Your task to perform on an android device: turn off smart reply in the gmail app Image 0: 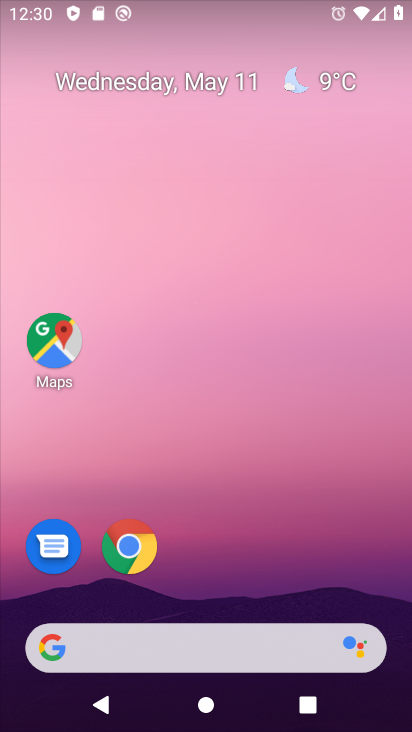
Step 0: click (283, 189)
Your task to perform on an android device: turn off smart reply in the gmail app Image 1: 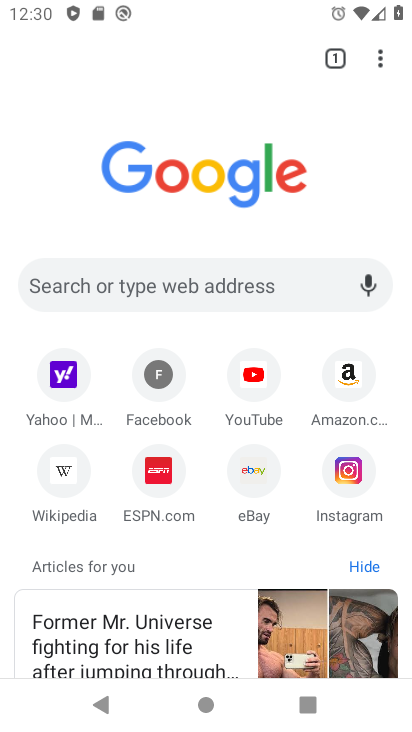
Step 1: drag from (212, 657) to (254, 357)
Your task to perform on an android device: turn off smart reply in the gmail app Image 2: 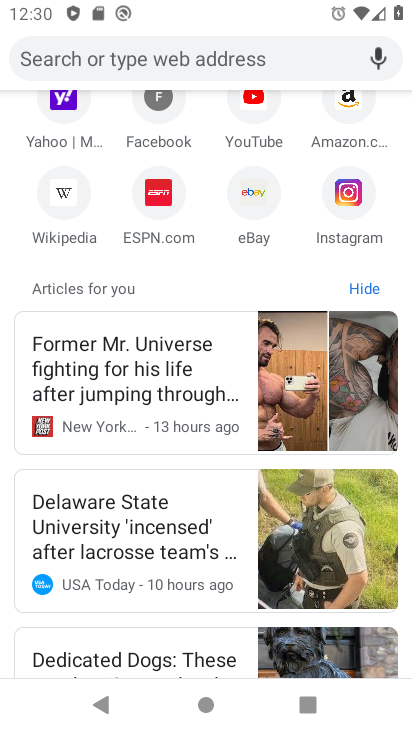
Step 2: press home button
Your task to perform on an android device: turn off smart reply in the gmail app Image 3: 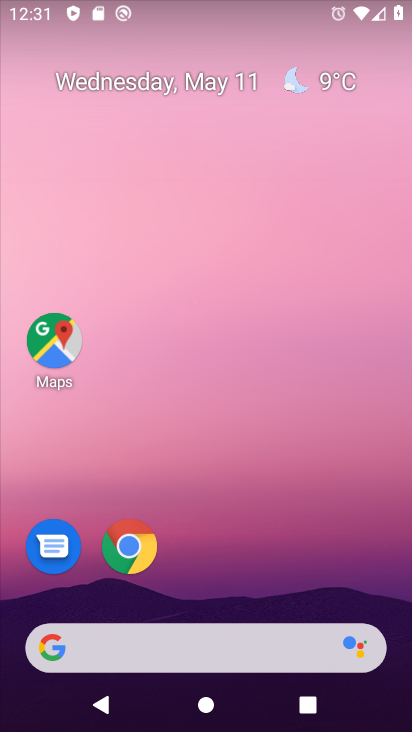
Step 3: drag from (194, 595) to (198, 154)
Your task to perform on an android device: turn off smart reply in the gmail app Image 4: 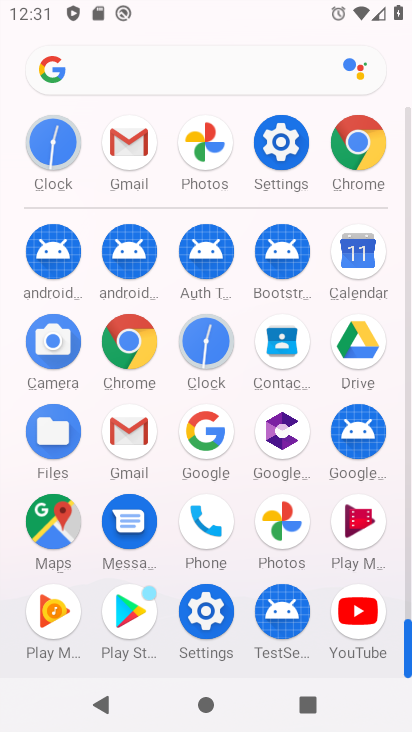
Step 4: click (128, 434)
Your task to perform on an android device: turn off smart reply in the gmail app Image 5: 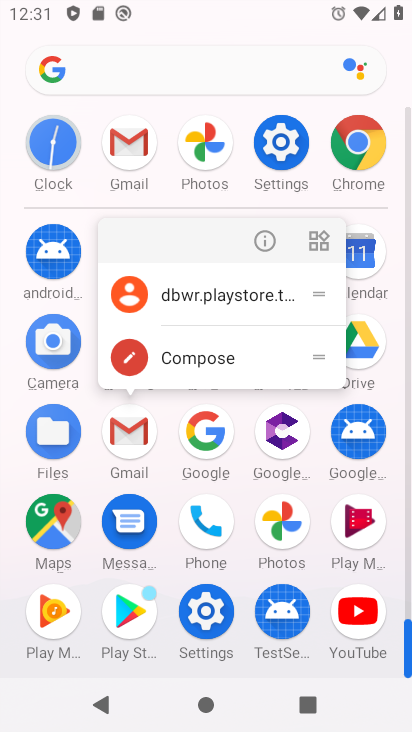
Step 5: click (252, 248)
Your task to perform on an android device: turn off smart reply in the gmail app Image 6: 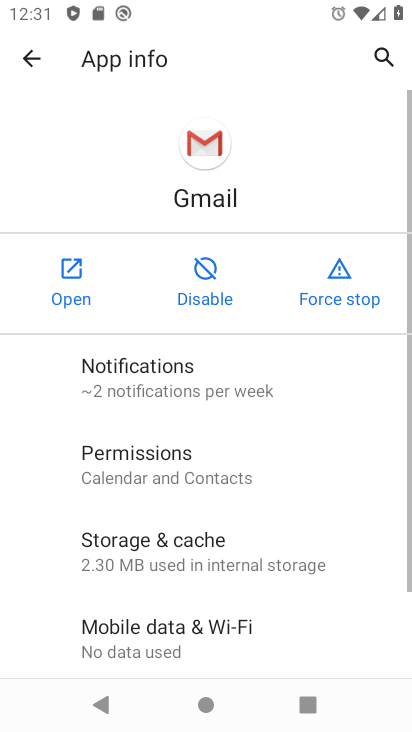
Step 6: click (69, 247)
Your task to perform on an android device: turn off smart reply in the gmail app Image 7: 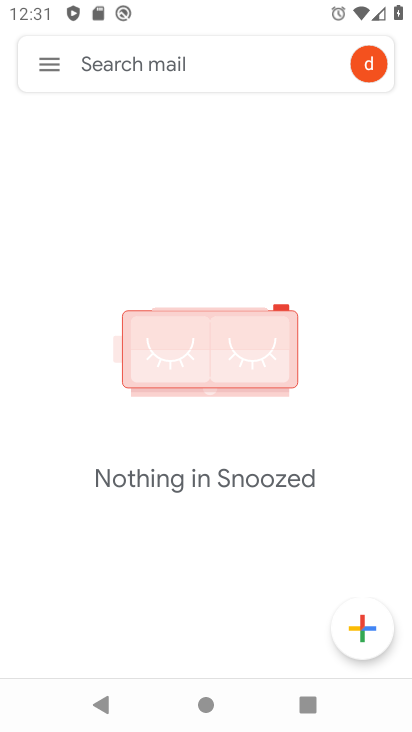
Step 7: click (51, 72)
Your task to perform on an android device: turn off smart reply in the gmail app Image 8: 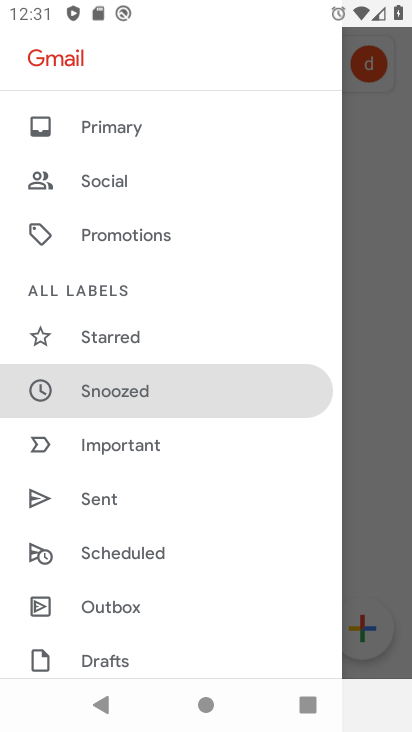
Step 8: drag from (156, 597) to (176, 280)
Your task to perform on an android device: turn off smart reply in the gmail app Image 9: 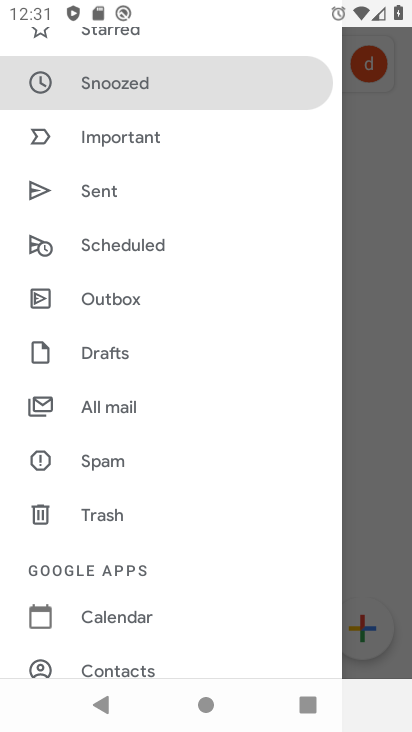
Step 9: drag from (141, 641) to (213, 162)
Your task to perform on an android device: turn off smart reply in the gmail app Image 10: 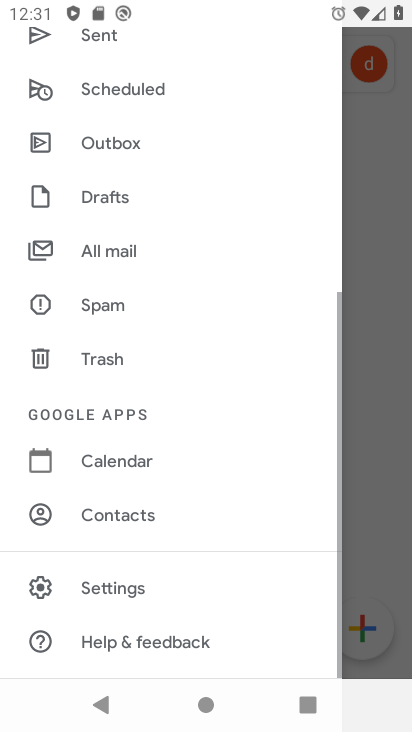
Step 10: click (117, 591)
Your task to perform on an android device: turn off smart reply in the gmail app Image 11: 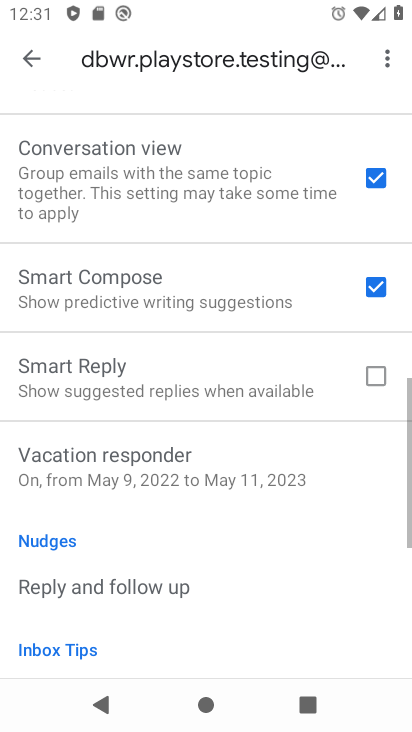
Step 11: task complete